Your task to perform on an android device: Clear the shopping cart on bestbuy.com. Image 0: 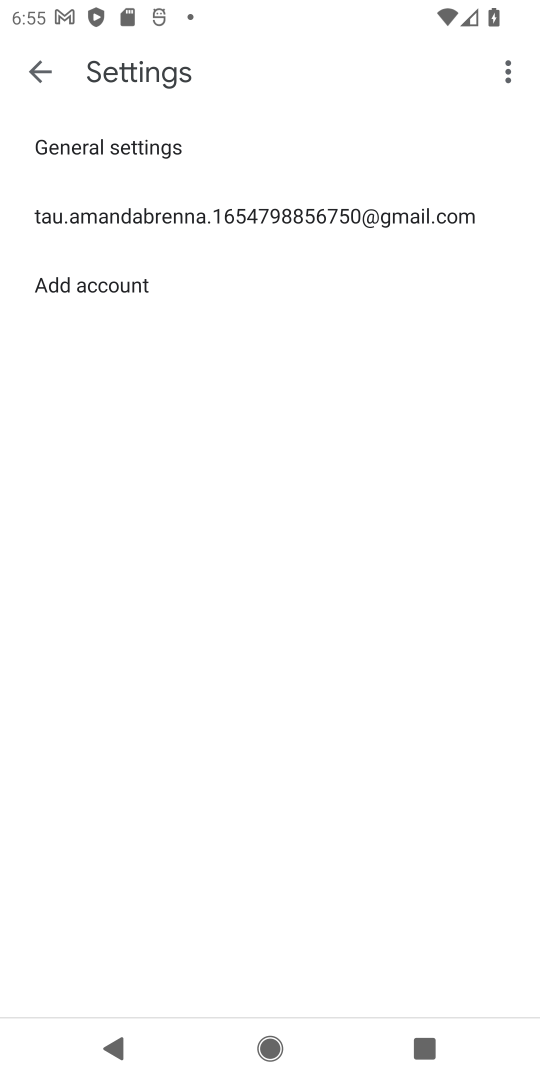
Step 0: press home button
Your task to perform on an android device: Clear the shopping cart on bestbuy.com. Image 1: 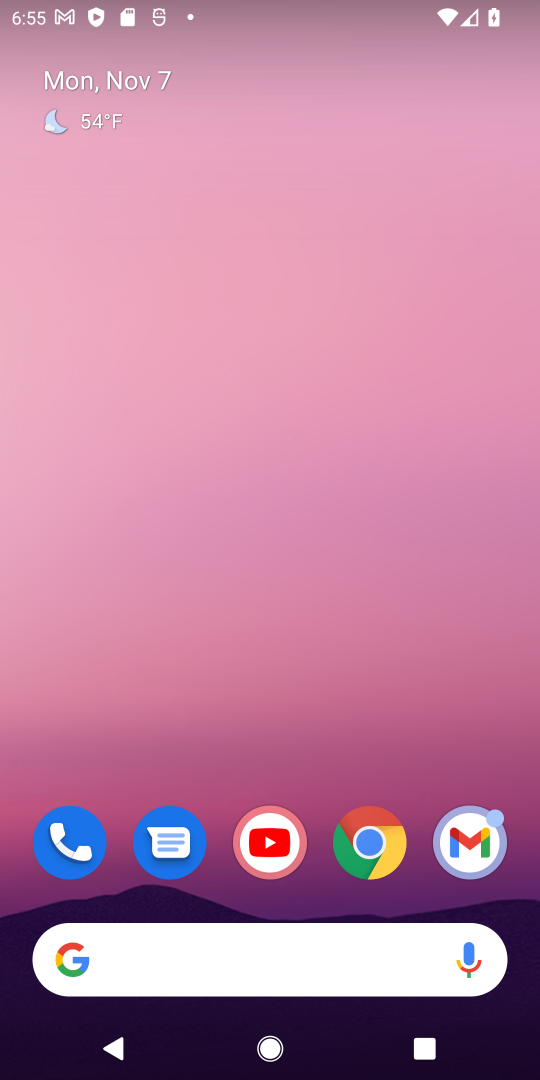
Step 1: click (381, 849)
Your task to perform on an android device: Clear the shopping cart on bestbuy.com. Image 2: 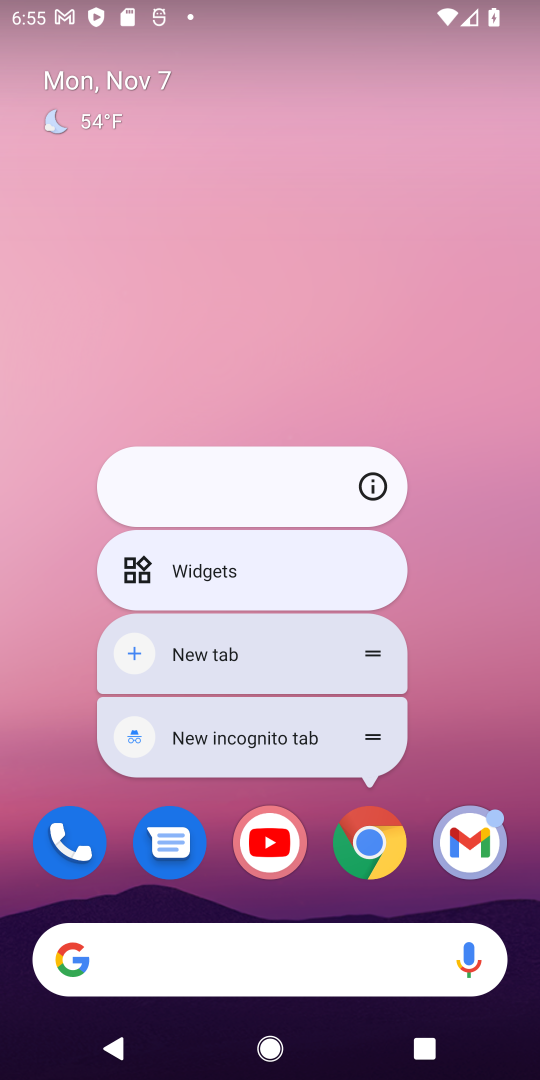
Step 2: click (364, 838)
Your task to perform on an android device: Clear the shopping cart on bestbuy.com. Image 3: 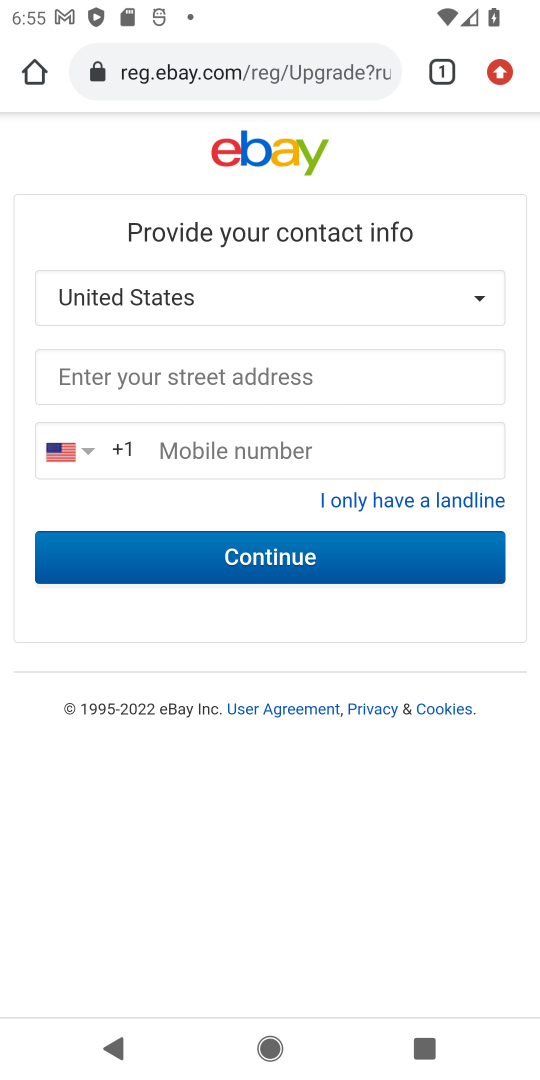
Step 3: click (329, 73)
Your task to perform on an android device: Clear the shopping cart on bestbuy.com. Image 4: 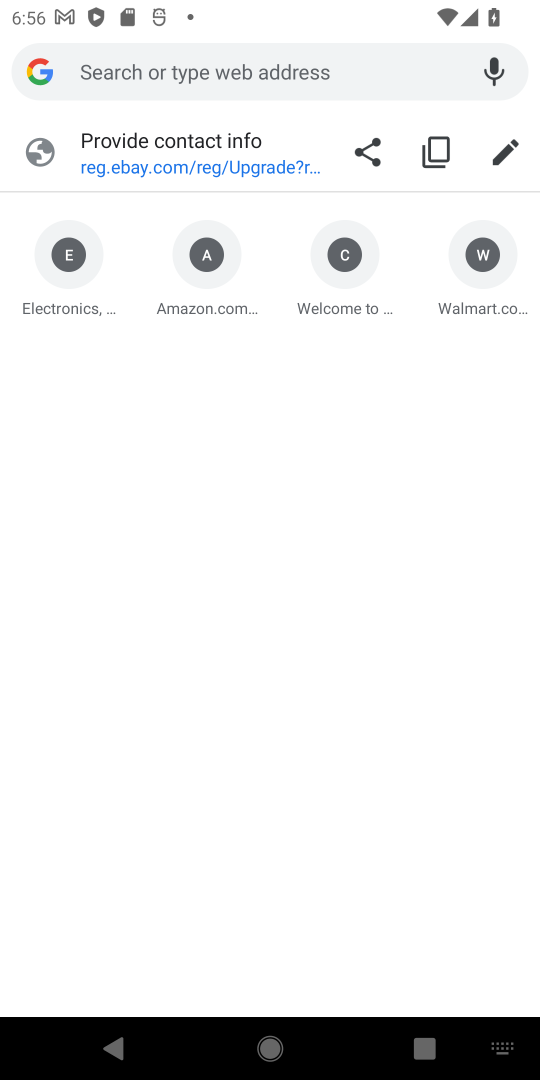
Step 4: drag from (455, 293) to (0, 263)
Your task to perform on an android device: Clear the shopping cart on bestbuy.com. Image 5: 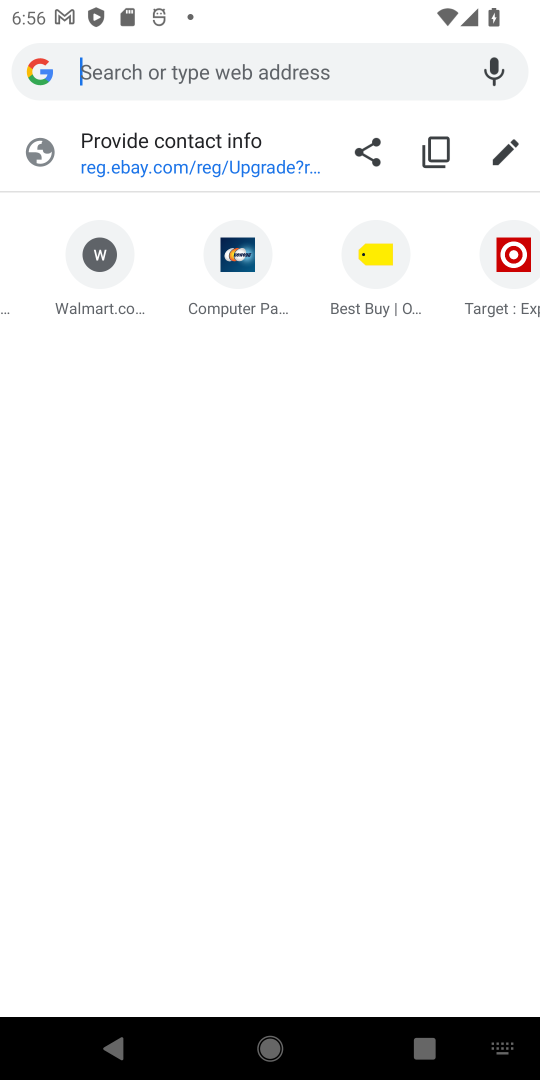
Step 5: click (370, 302)
Your task to perform on an android device: Clear the shopping cart on bestbuy.com. Image 6: 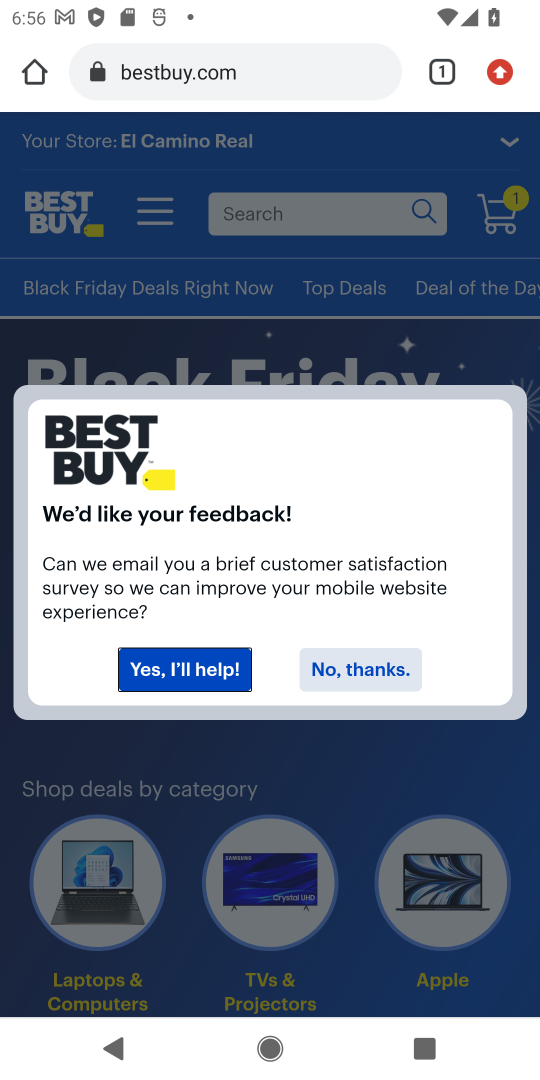
Step 6: click (332, 668)
Your task to perform on an android device: Clear the shopping cart on bestbuy.com. Image 7: 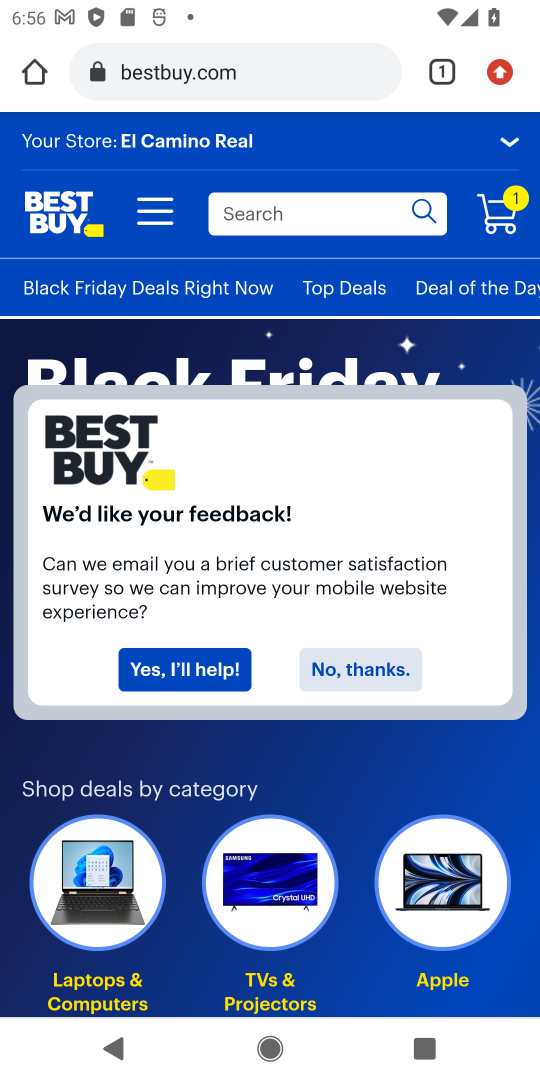
Step 7: click (345, 207)
Your task to perform on an android device: Clear the shopping cart on bestbuy.com. Image 8: 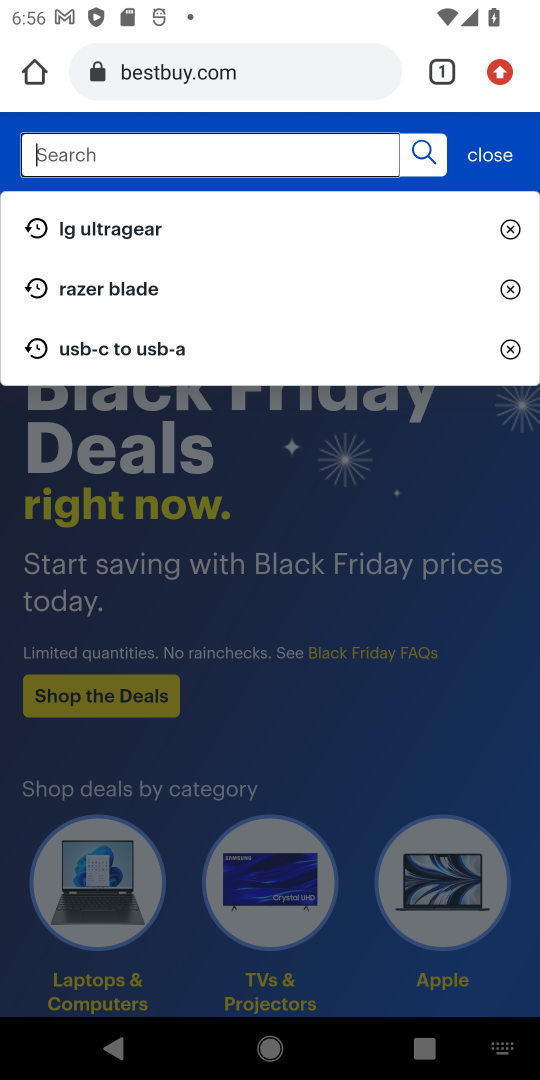
Step 8: click (474, 151)
Your task to perform on an android device: Clear the shopping cart on bestbuy.com. Image 9: 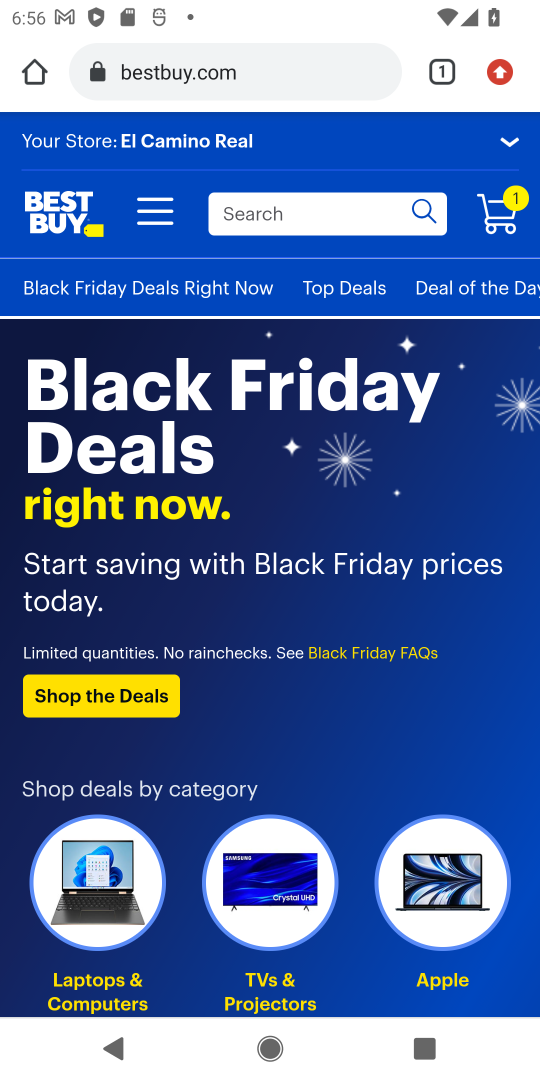
Step 9: click (501, 213)
Your task to perform on an android device: Clear the shopping cart on bestbuy.com. Image 10: 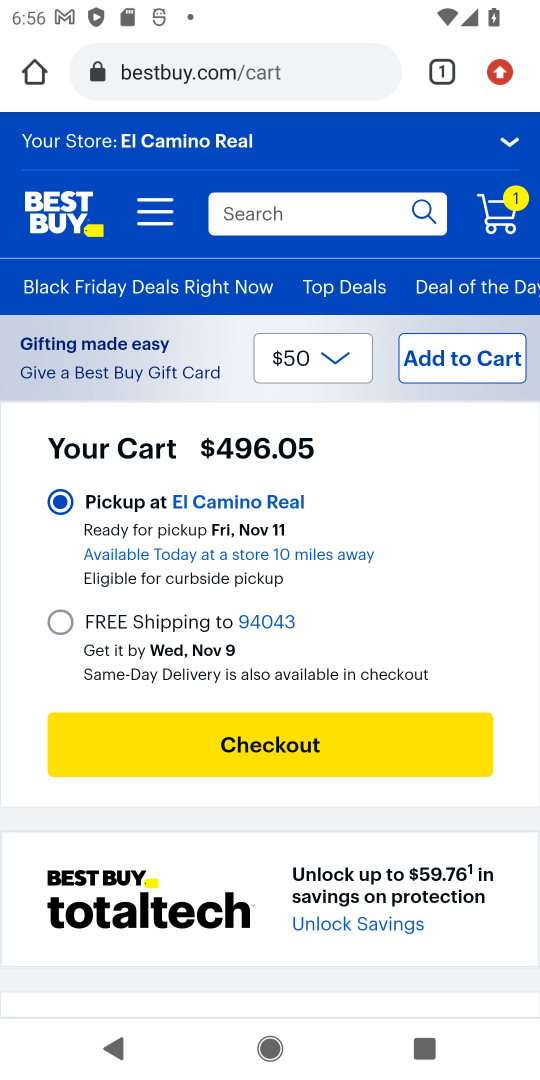
Step 10: drag from (375, 680) to (401, 317)
Your task to perform on an android device: Clear the shopping cart on bestbuy.com. Image 11: 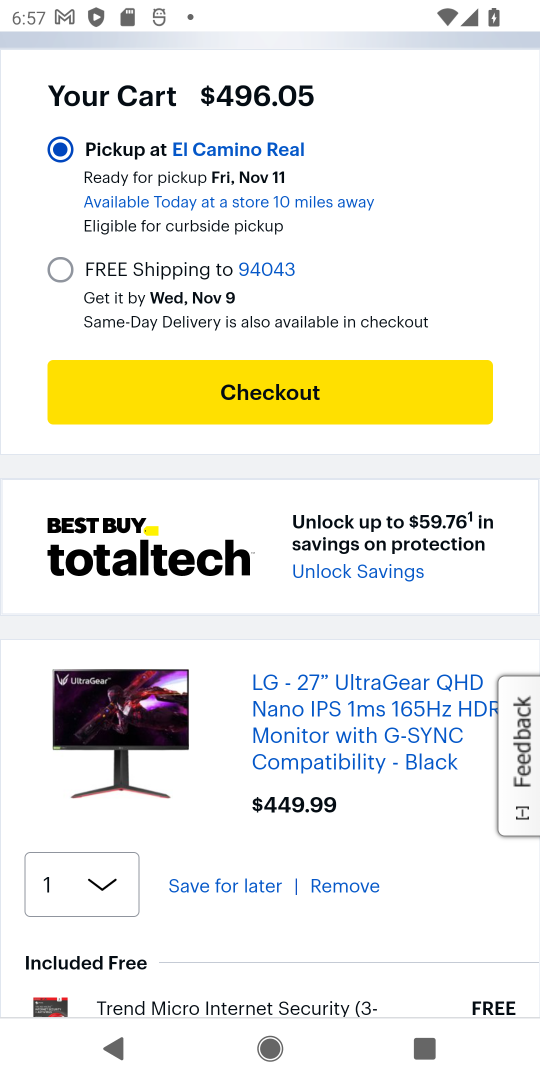
Step 11: click (326, 881)
Your task to perform on an android device: Clear the shopping cart on bestbuy.com. Image 12: 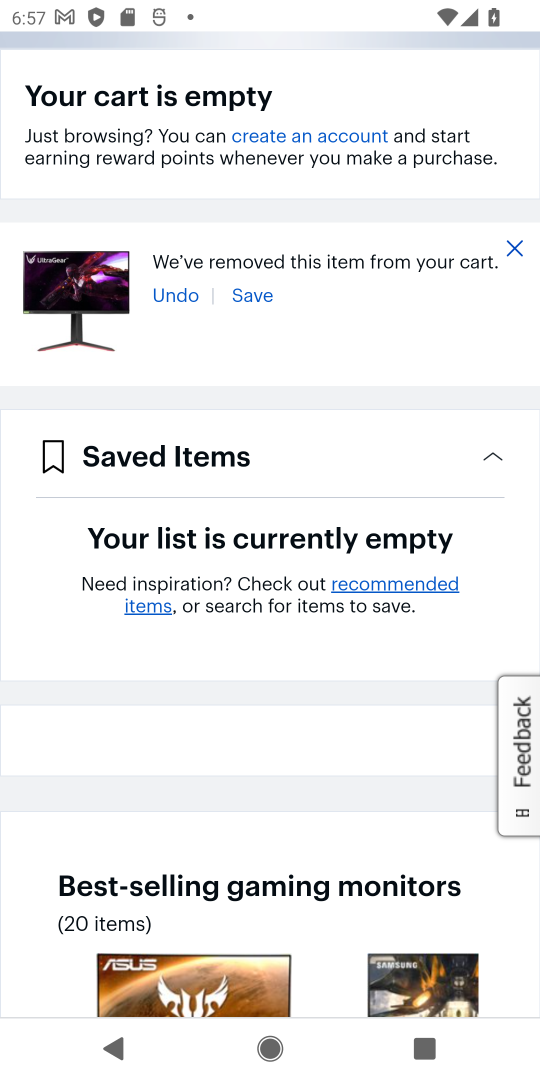
Step 12: task complete